Your task to perform on an android device: Open Youtube and go to the subscriptions tab Image 0: 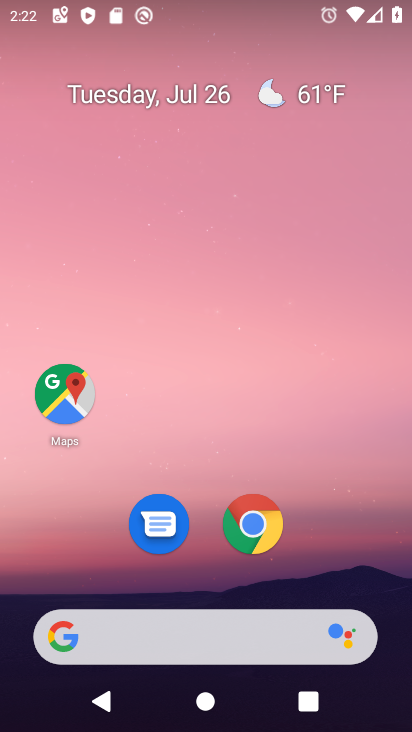
Step 0: press home button
Your task to perform on an android device: Open Youtube and go to the subscriptions tab Image 1: 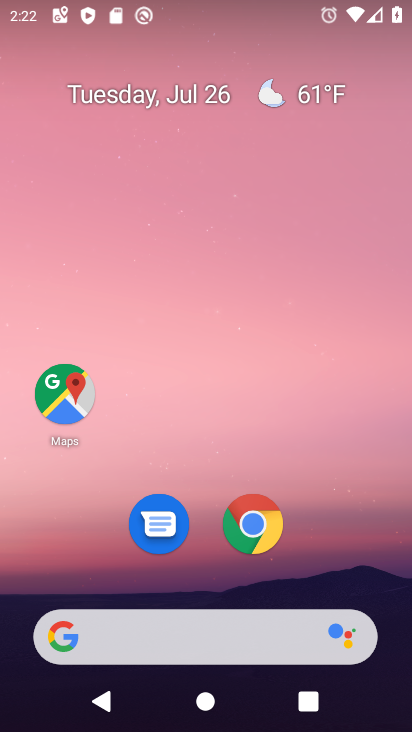
Step 1: drag from (187, 572) to (308, 124)
Your task to perform on an android device: Open Youtube and go to the subscriptions tab Image 2: 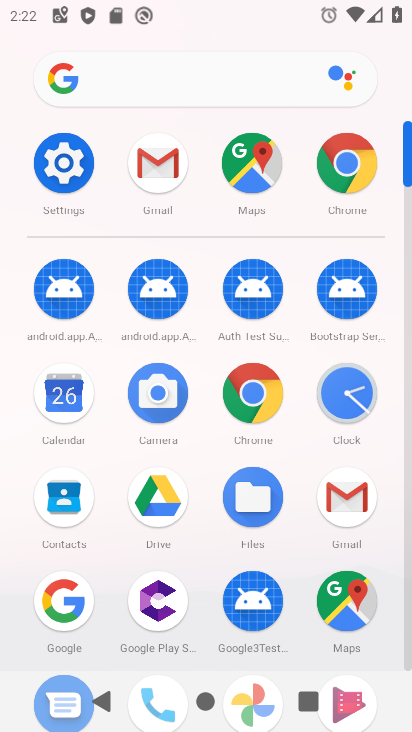
Step 2: drag from (199, 643) to (402, 72)
Your task to perform on an android device: Open Youtube and go to the subscriptions tab Image 3: 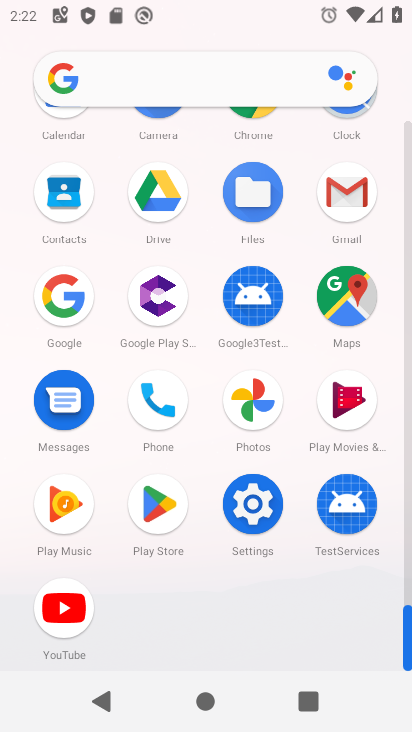
Step 3: click (80, 607)
Your task to perform on an android device: Open Youtube and go to the subscriptions tab Image 4: 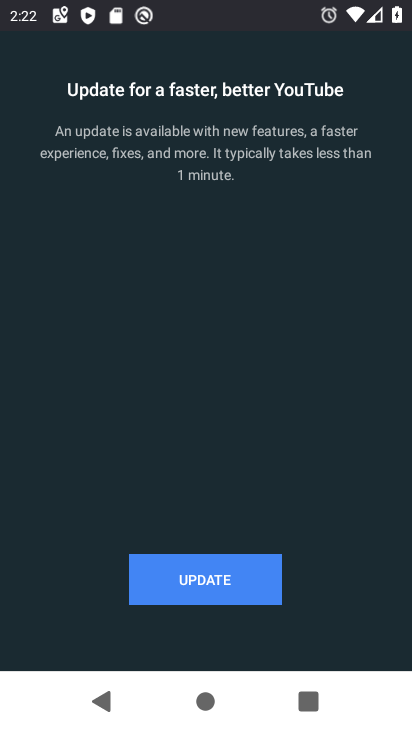
Step 4: click (212, 581)
Your task to perform on an android device: Open Youtube and go to the subscriptions tab Image 5: 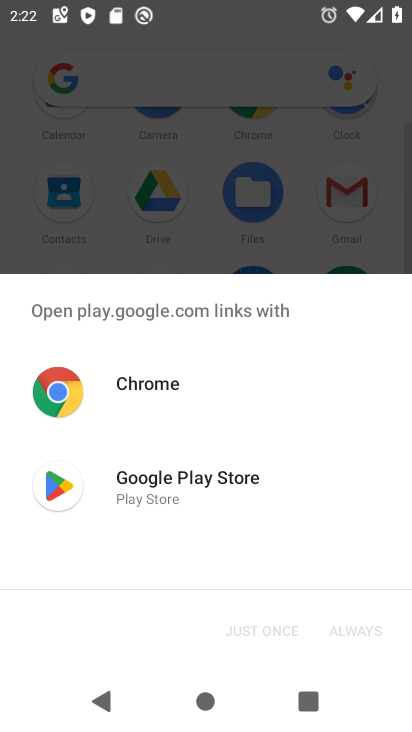
Step 5: click (184, 476)
Your task to perform on an android device: Open Youtube and go to the subscriptions tab Image 6: 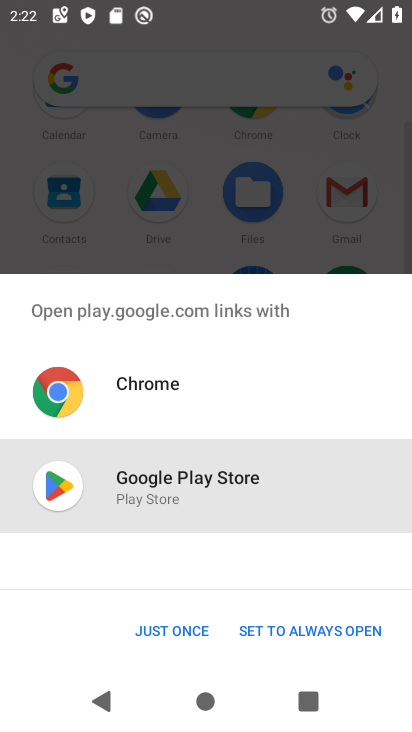
Step 6: click (183, 631)
Your task to perform on an android device: Open Youtube and go to the subscriptions tab Image 7: 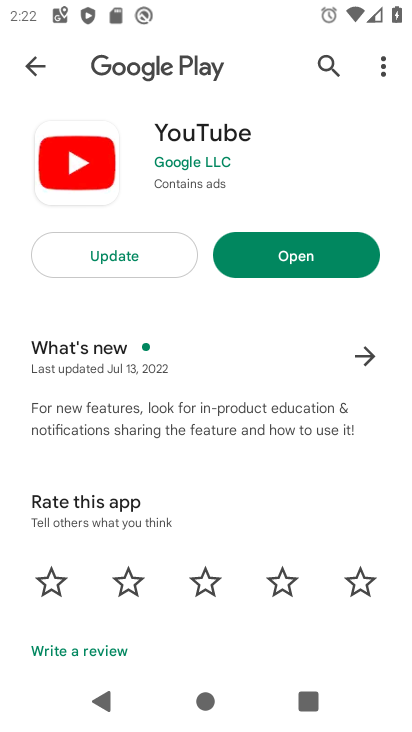
Step 7: click (137, 253)
Your task to perform on an android device: Open Youtube and go to the subscriptions tab Image 8: 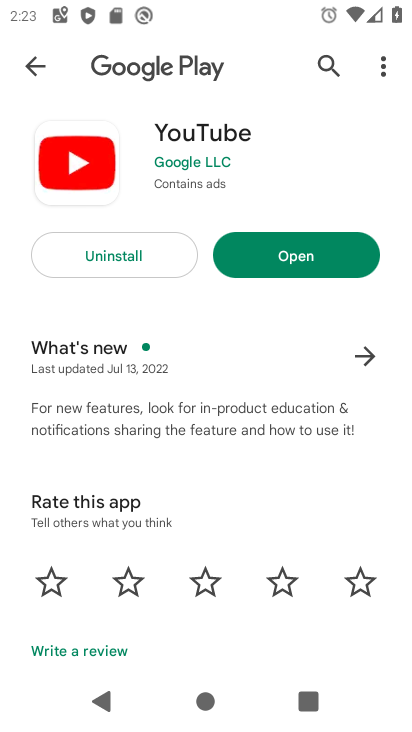
Step 8: click (317, 261)
Your task to perform on an android device: Open Youtube and go to the subscriptions tab Image 9: 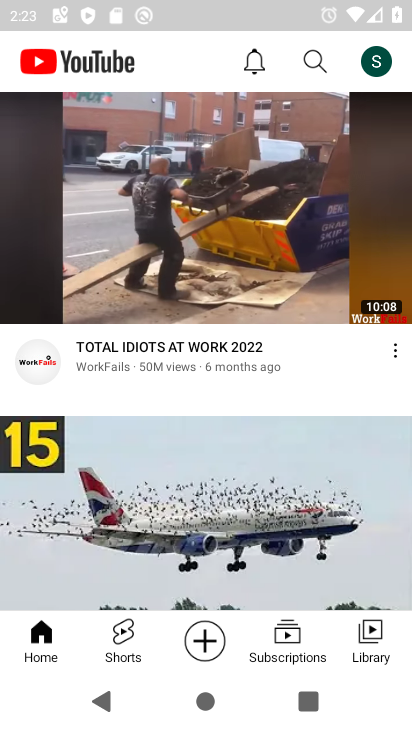
Step 9: click (291, 649)
Your task to perform on an android device: Open Youtube and go to the subscriptions tab Image 10: 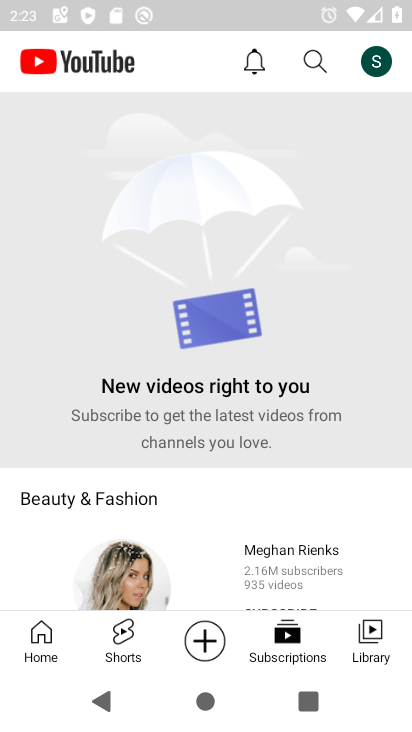
Step 10: task complete